Your task to perform on an android device: What is the recent news? Image 0: 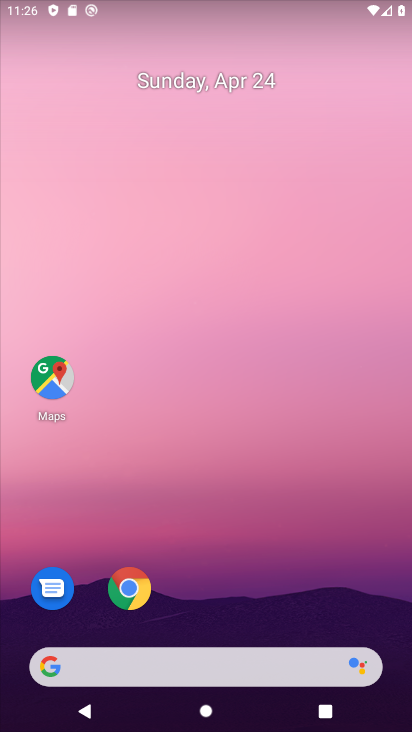
Step 0: drag from (296, 475) to (293, 116)
Your task to perform on an android device: What is the recent news? Image 1: 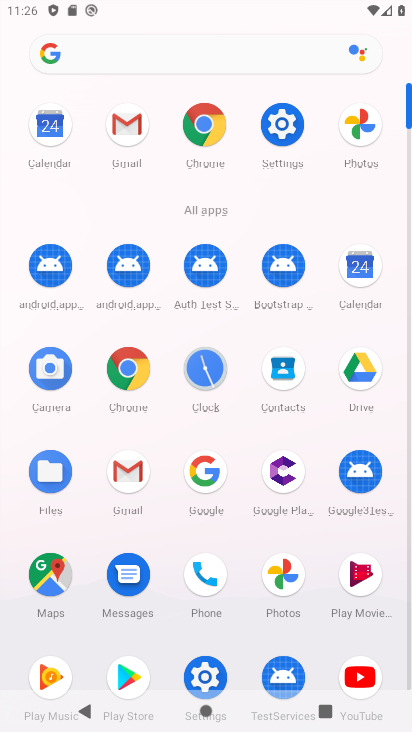
Step 1: click (212, 472)
Your task to perform on an android device: What is the recent news? Image 2: 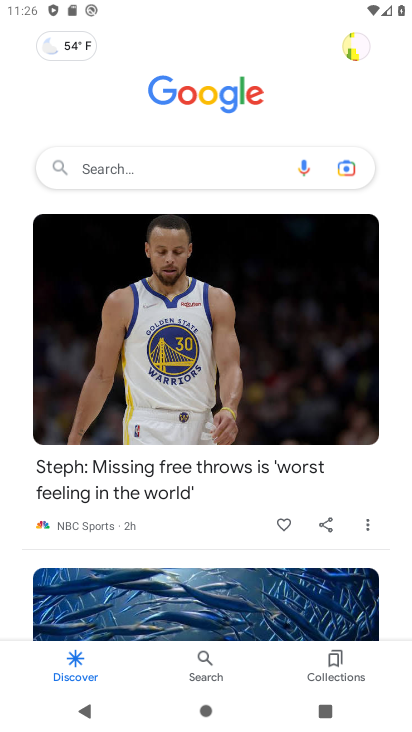
Step 2: click (166, 167)
Your task to perform on an android device: What is the recent news? Image 3: 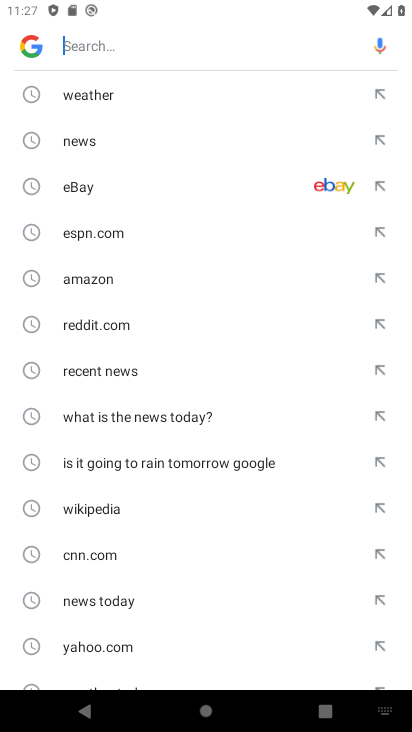
Step 3: click (125, 369)
Your task to perform on an android device: What is the recent news? Image 4: 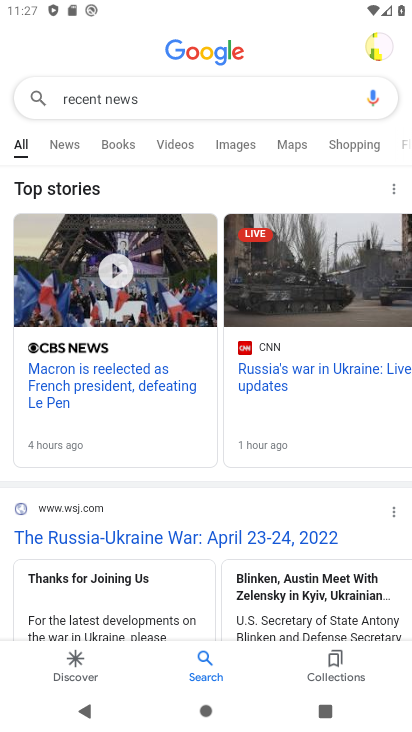
Step 4: click (70, 148)
Your task to perform on an android device: What is the recent news? Image 5: 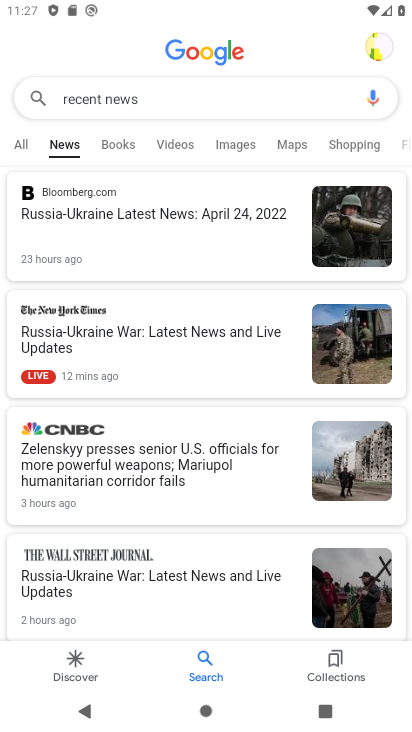
Step 5: task complete